Your task to perform on an android device: Go to CNN.com Image 0: 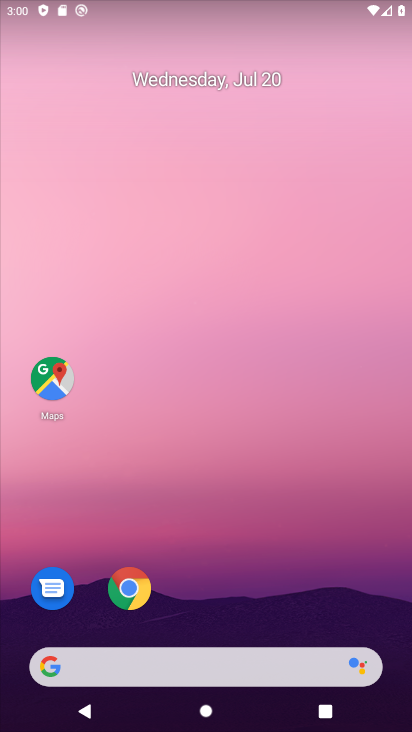
Step 0: drag from (243, 601) to (242, 10)
Your task to perform on an android device: Go to CNN.com Image 1: 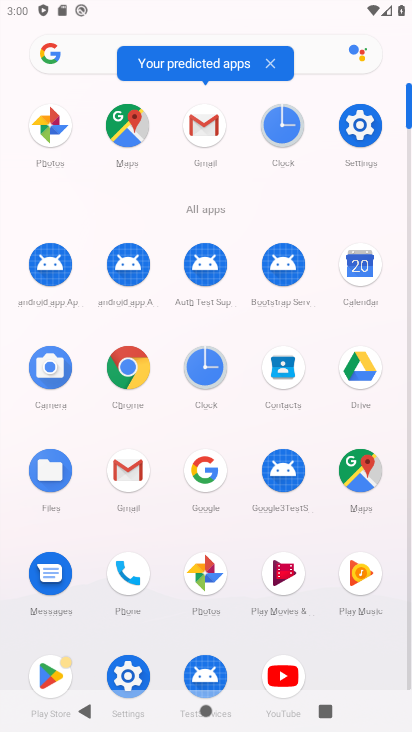
Step 1: click (354, 130)
Your task to perform on an android device: Go to CNN.com Image 2: 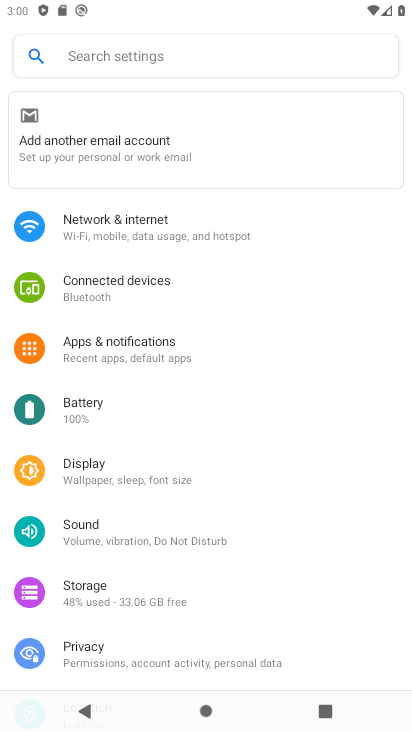
Step 2: click (142, 478)
Your task to perform on an android device: Go to CNN.com Image 3: 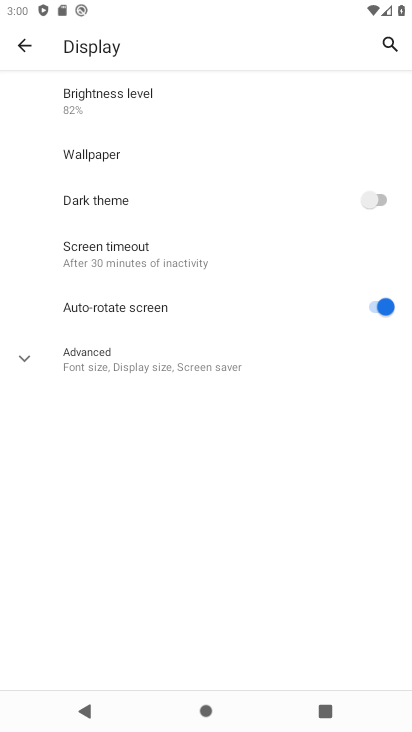
Step 3: click (142, 360)
Your task to perform on an android device: Go to CNN.com Image 4: 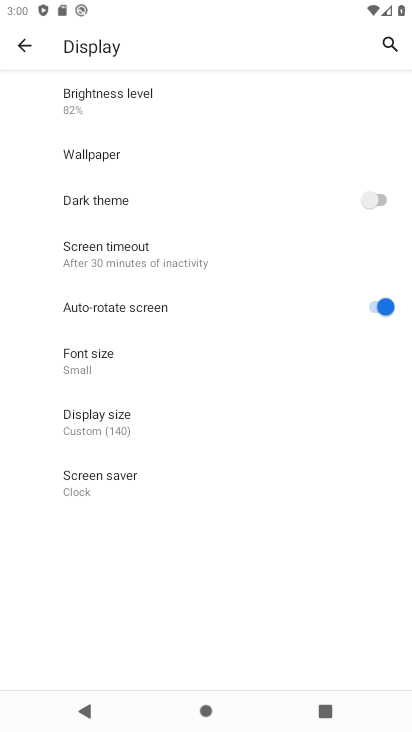
Step 4: click (96, 429)
Your task to perform on an android device: Go to CNN.com Image 5: 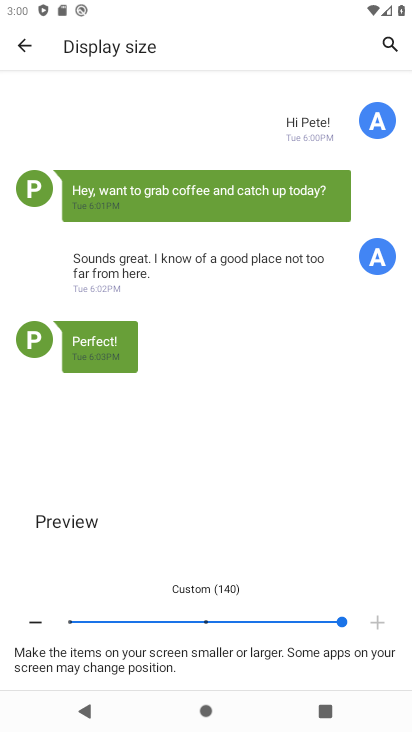
Step 5: click (207, 625)
Your task to perform on an android device: Go to CNN.com Image 6: 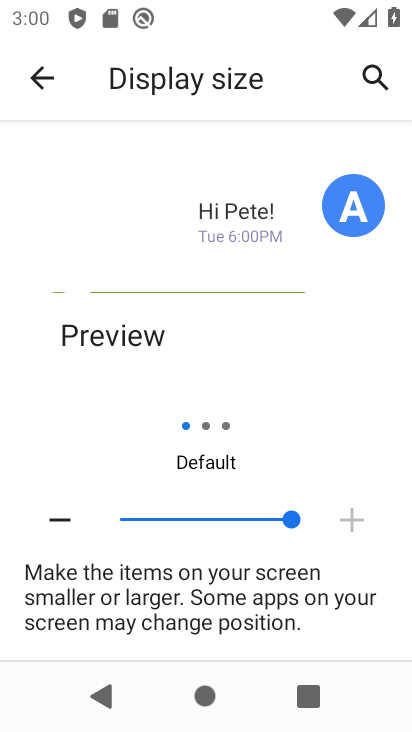
Step 6: click (44, 82)
Your task to perform on an android device: Go to CNN.com Image 7: 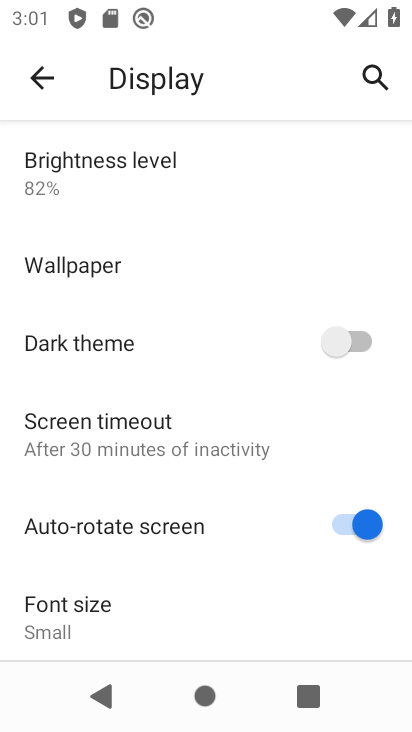
Step 7: click (39, 72)
Your task to perform on an android device: Go to CNN.com Image 8: 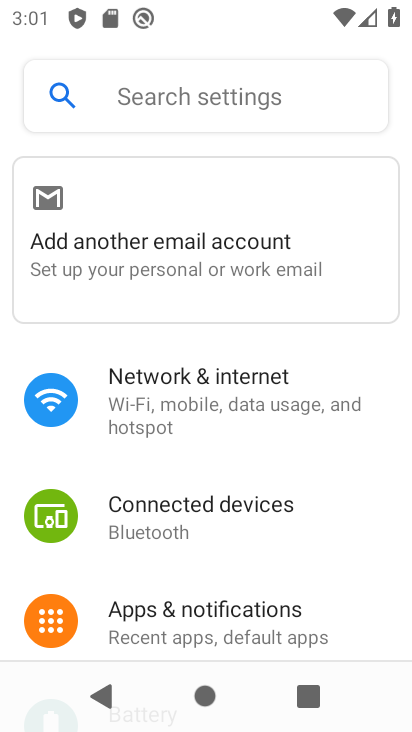
Step 8: press back button
Your task to perform on an android device: Go to CNN.com Image 9: 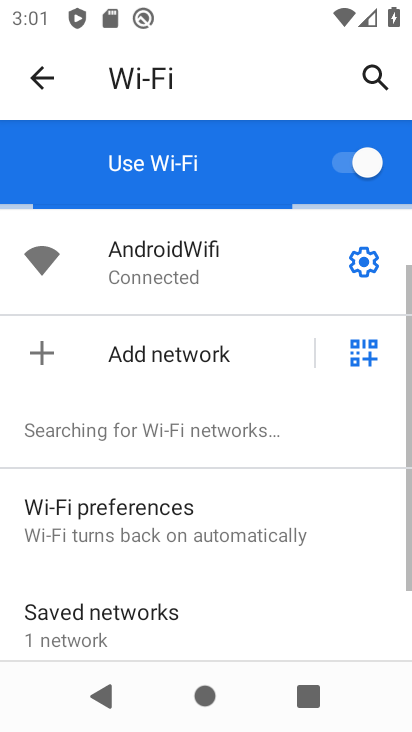
Step 9: press back button
Your task to perform on an android device: Go to CNN.com Image 10: 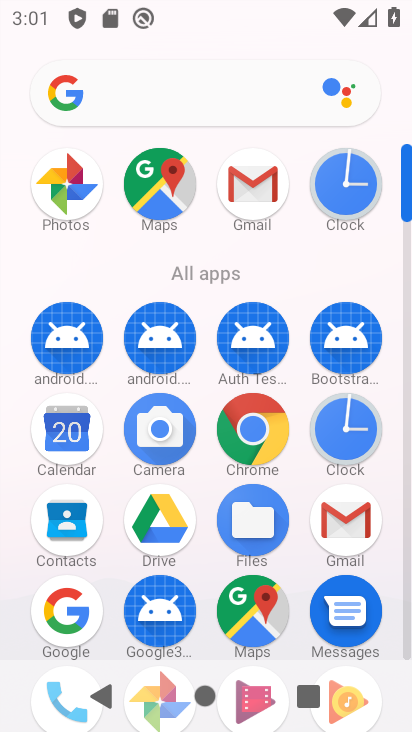
Step 10: click (266, 433)
Your task to perform on an android device: Go to CNN.com Image 11: 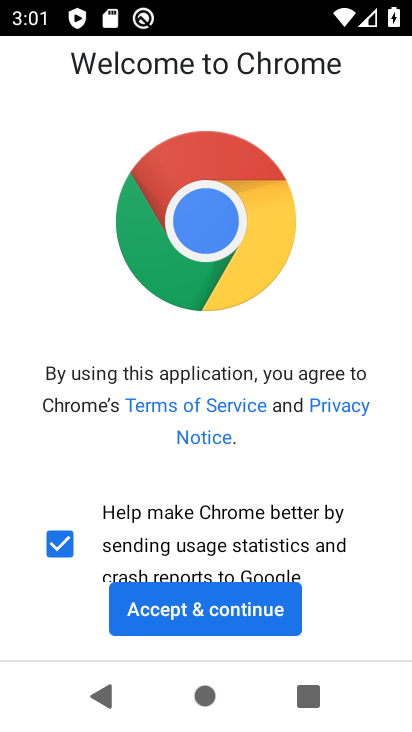
Step 11: click (174, 613)
Your task to perform on an android device: Go to CNN.com Image 12: 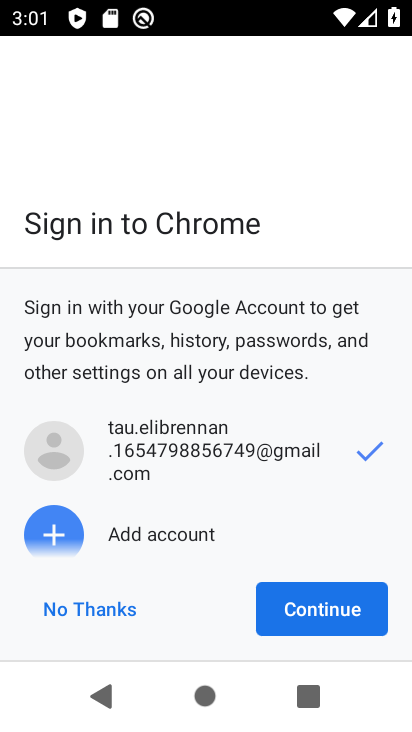
Step 12: click (328, 601)
Your task to perform on an android device: Go to CNN.com Image 13: 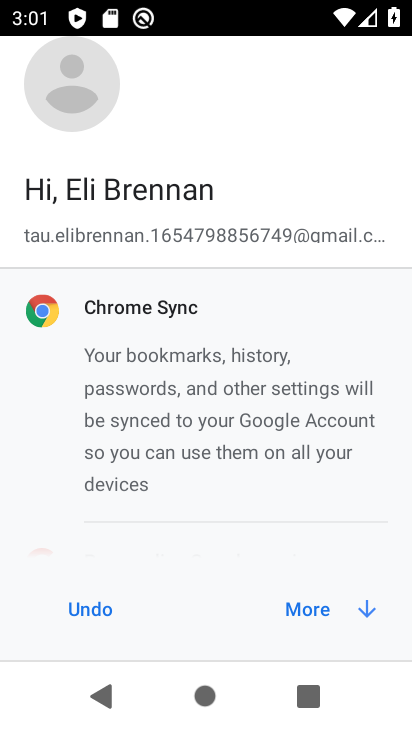
Step 13: click (333, 601)
Your task to perform on an android device: Go to CNN.com Image 14: 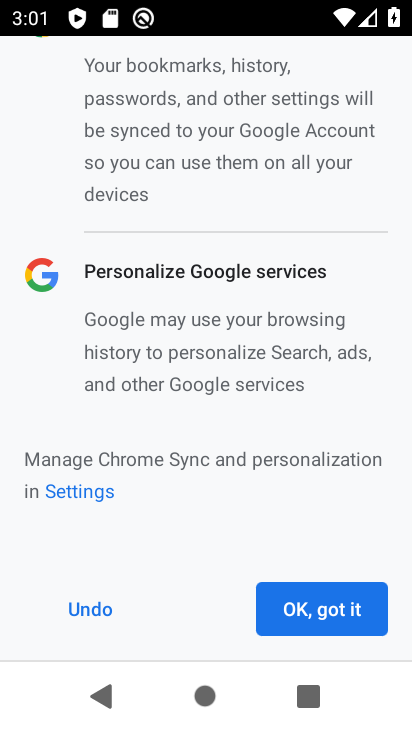
Step 14: click (335, 604)
Your task to perform on an android device: Go to CNN.com Image 15: 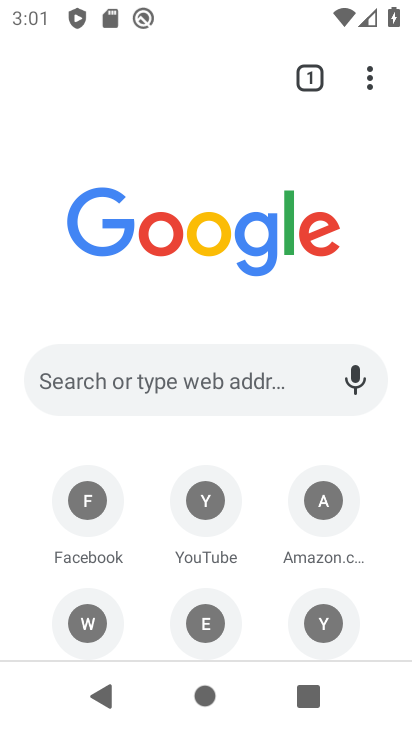
Step 15: drag from (223, 603) to (262, 141)
Your task to perform on an android device: Go to CNN.com Image 16: 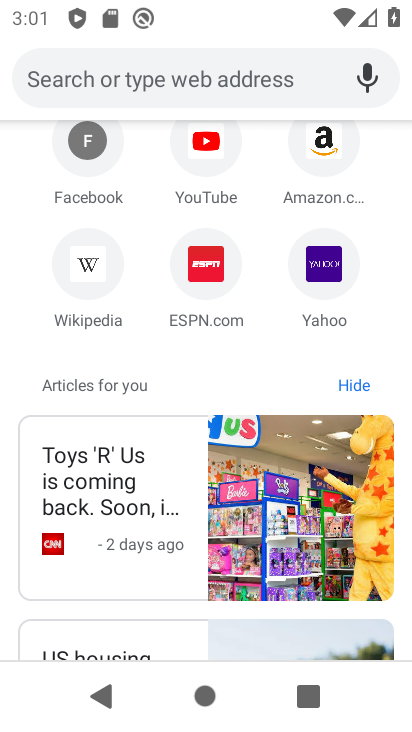
Step 16: click (134, 78)
Your task to perform on an android device: Go to CNN.com Image 17: 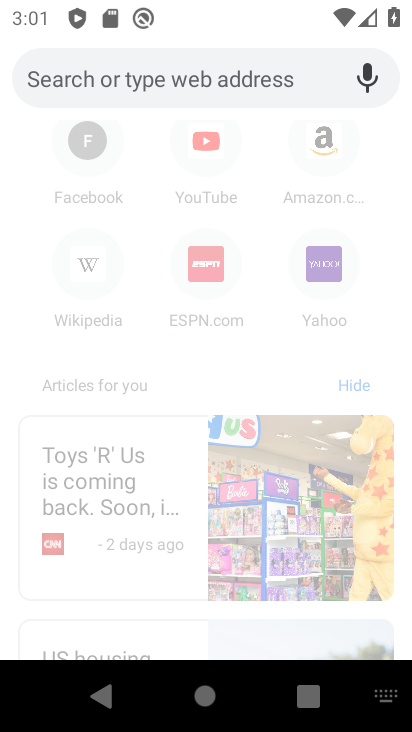
Step 17: type "cnn.com"
Your task to perform on an android device: Go to CNN.com Image 18: 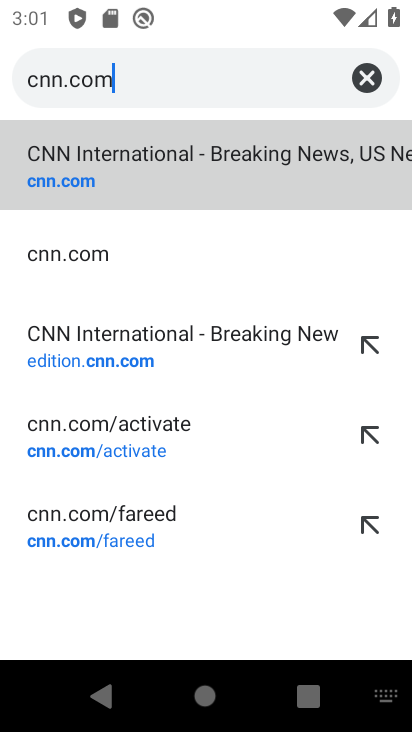
Step 18: click (152, 165)
Your task to perform on an android device: Go to CNN.com Image 19: 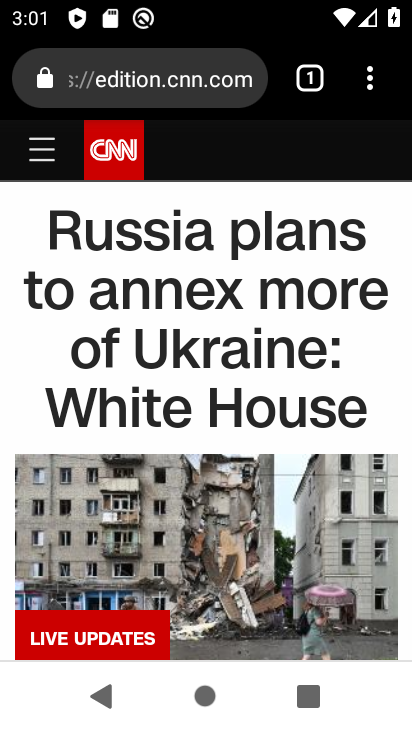
Step 19: task complete